Your task to perform on an android device: Go to settings Image 0: 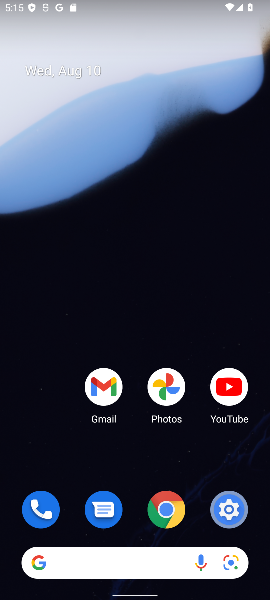
Step 0: drag from (134, 452) to (241, 11)
Your task to perform on an android device: Go to settings Image 1: 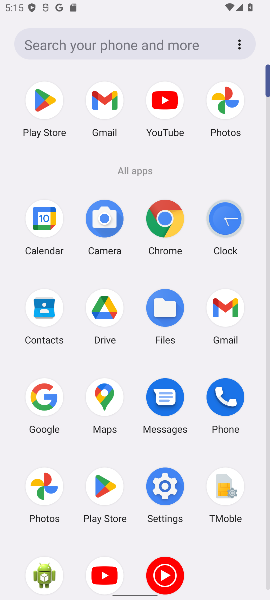
Step 1: click (166, 477)
Your task to perform on an android device: Go to settings Image 2: 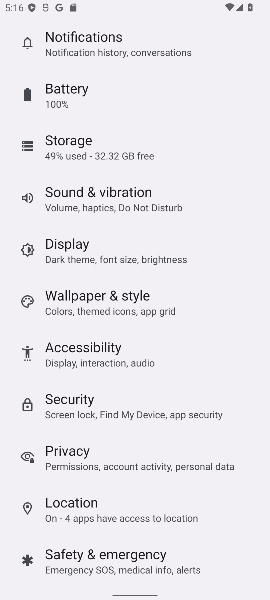
Step 2: task complete